Your task to perform on an android device: set the stopwatch Image 0: 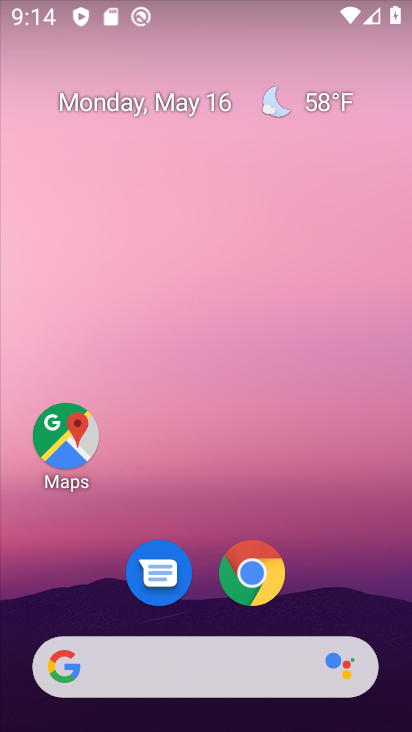
Step 0: drag from (274, 657) to (219, 119)
Your task to perform on an android device: set the stopwatch Image 1: 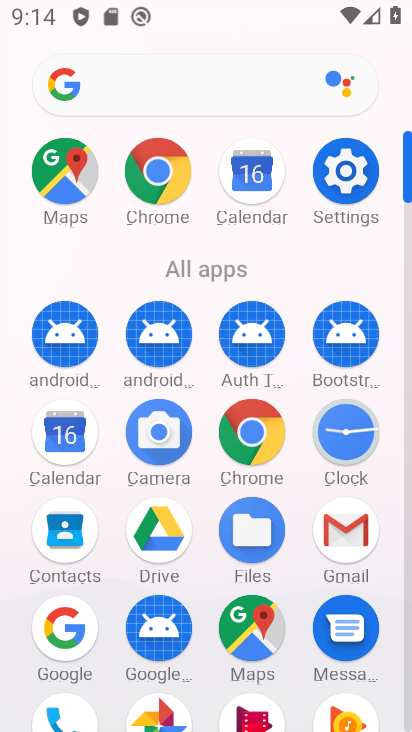
Step 1: click (332, 428)
Your task to perform on an android device: set the stopwatch Image 2: 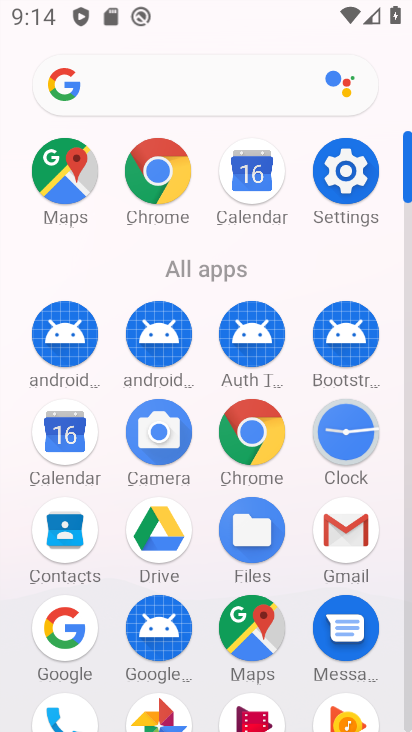
Step 2: click (332, 434)
Your task to perform on an android device: set the stopwatch Image 3: 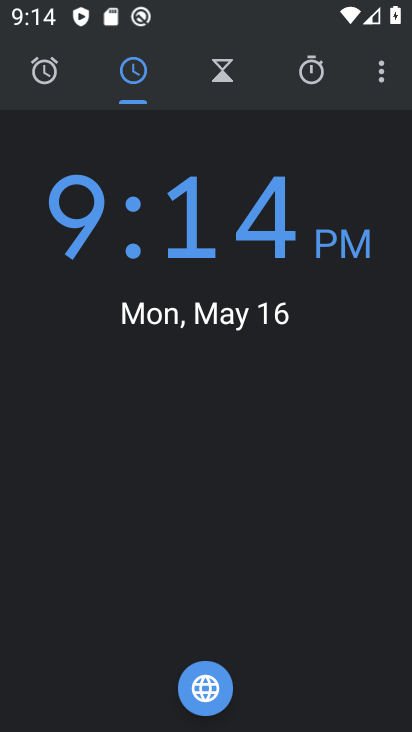
Step 3: click (319, 76)
Your task to perform on an android device: set the stopwatch Image 4: 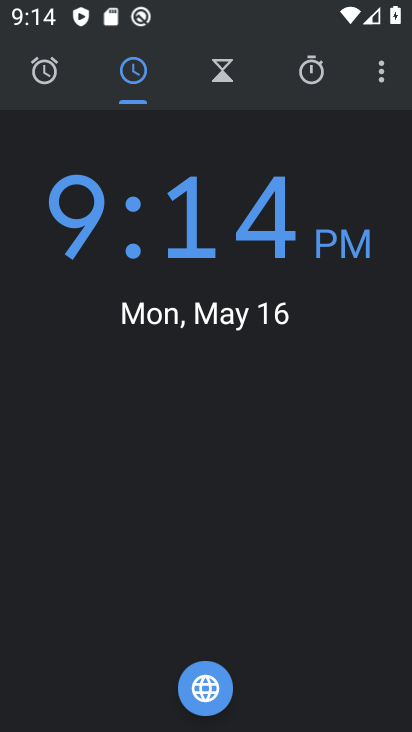
Step 4: click (319, 76)
Your task to perform on an android device: set the stopwatch Image 5: 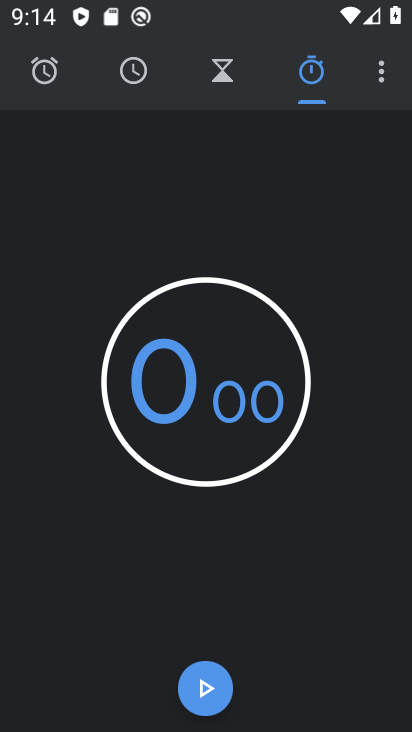
Step 5: click (205, 677)
Your task to perform on an android device: set the stopwatch Image 6: 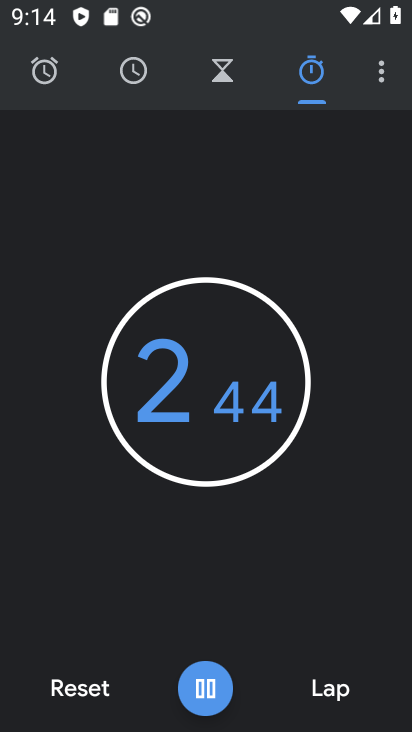
Step 6: click (198, 682)
Your task to perform on an android device: set the stopwatch Image 7: 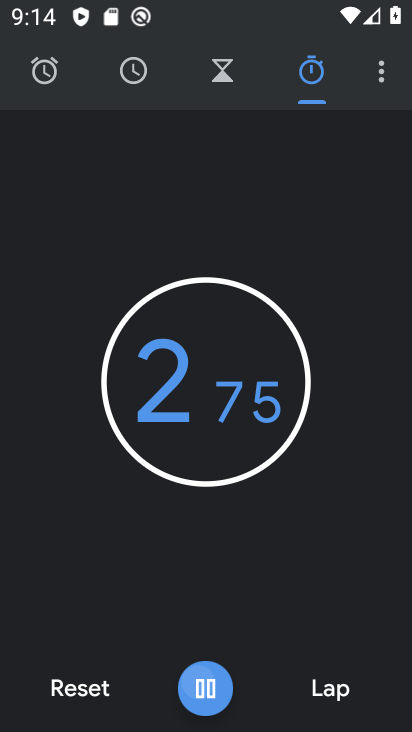
Step 7: click (198, 682)
Your task to perform on an android device: set the stopwatch Image 8: 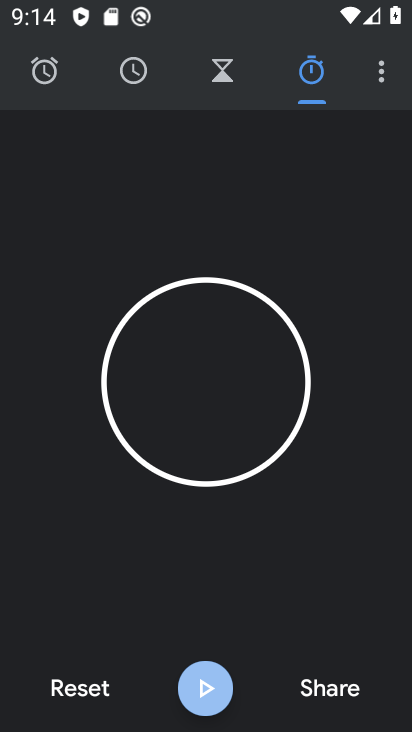
Step 8: click (198, 673)
Your task to perform on an android device: set the stopwatch Image 9: 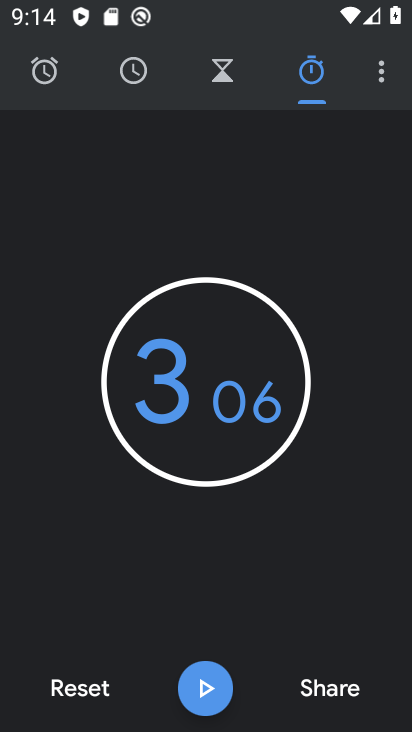
Step 9: task complete